Your task to perform on an android device: turn off improve location accuracy Image 0: 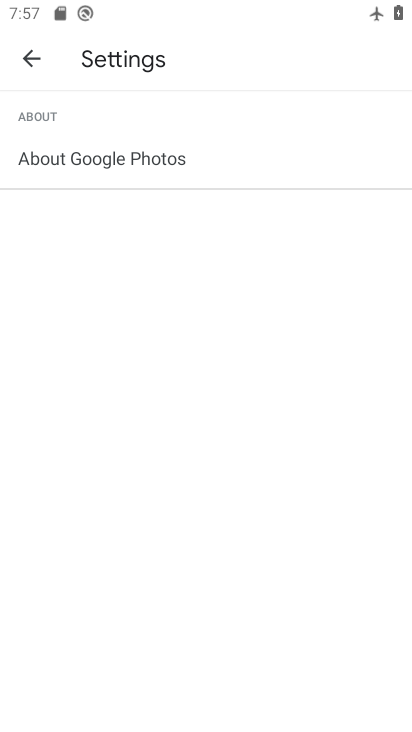
Step 0: press home button
Your task to perform on an android device: turn off improve location accuracy Image 1: 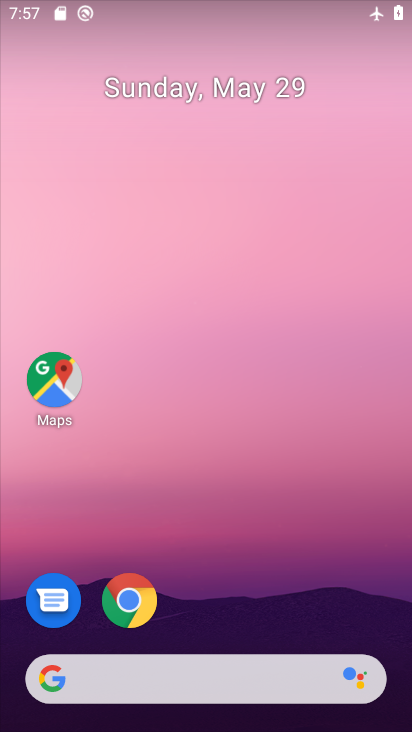
Step 1: drag from (249, 636) to (30, 541)
Your task to perform on an android device: turn off improve location accuracy Image 2: 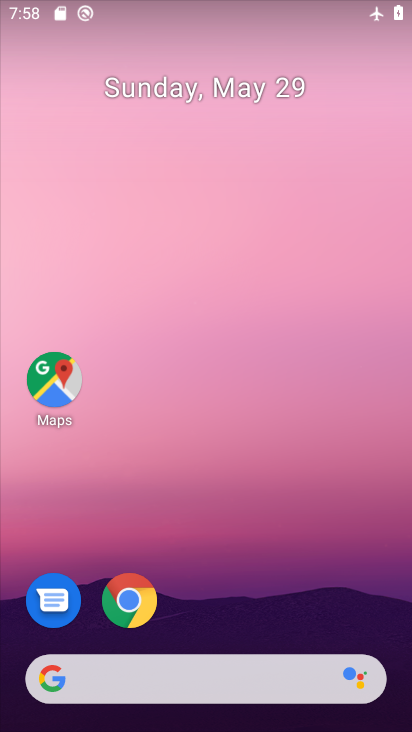
Step 2: drag from (233, 603) to (250, 7)
Your task to perform on an android device: turn off improve location accuracy Image 3: 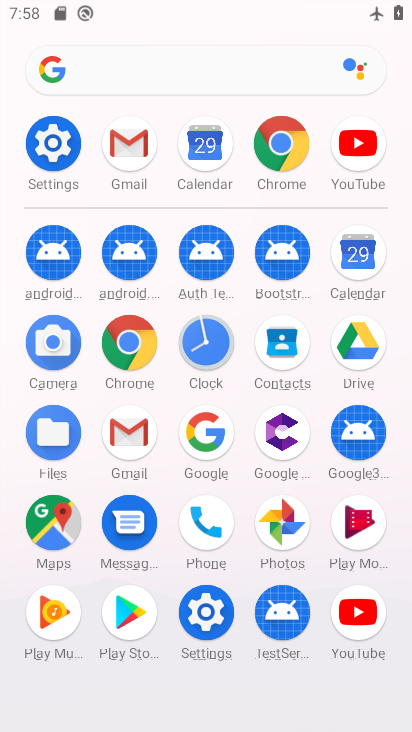
Step 3: click (60, 158)
Your task to perform on an android device: turn off improve location accuracy Image 4: 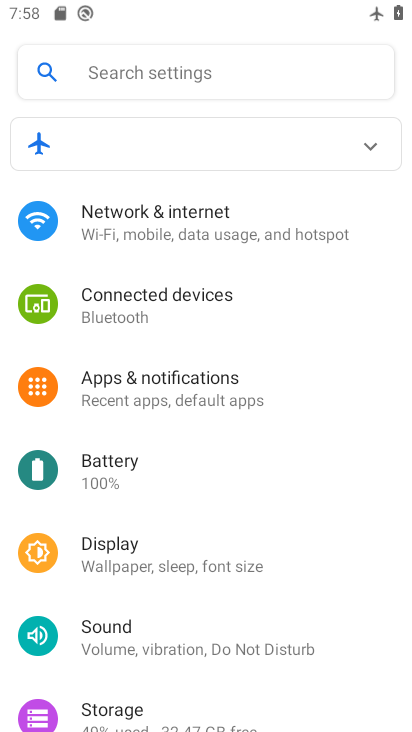
Step 4: drag from (171, 725) to (192, 354)
Your task to perform on an android device: turn off improve location accuracy Image 5: 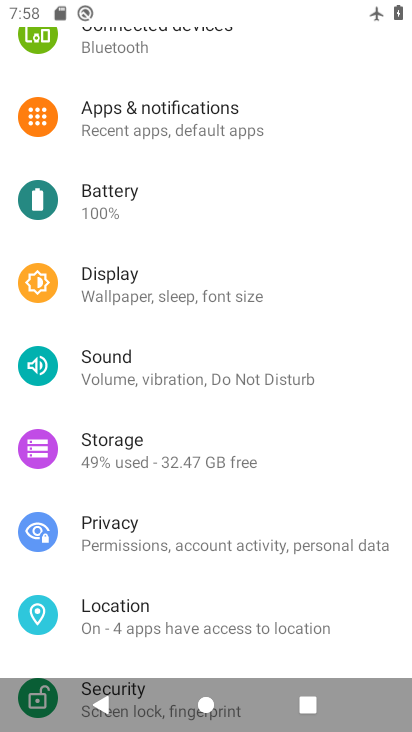
Step 5: click (173, 612)
Your task to perform on an android device: turn off improve location accuracy Image 6: 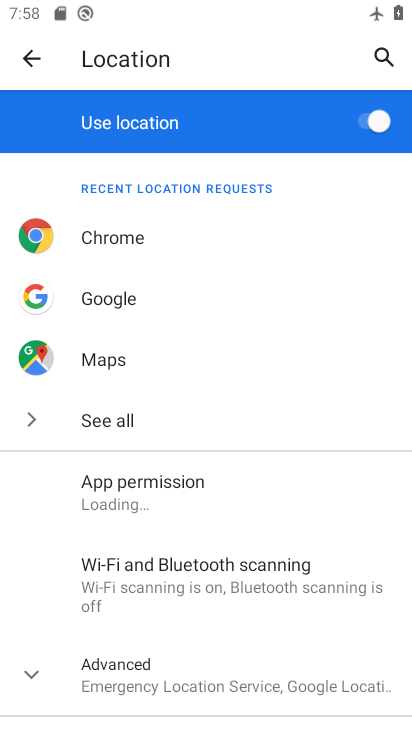
Step 6: drag from (185, 603) to (198, 331)
Your task to perform on an android device: turn off improve location accuracy Image 7: 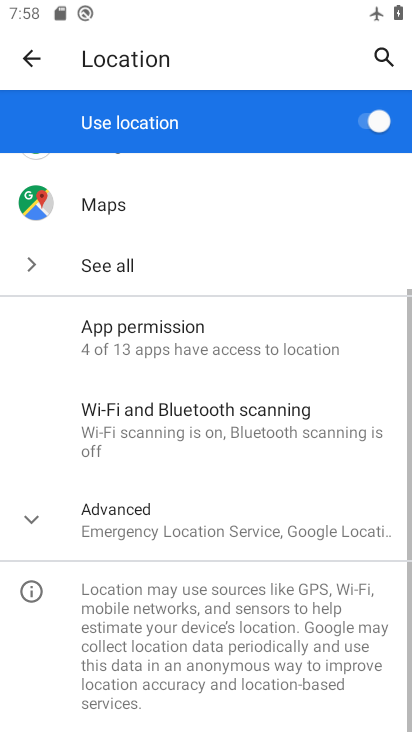
Step 7: click (101, 528)
Your task to perform on an android device: turn off improve location accuracy Image 8: 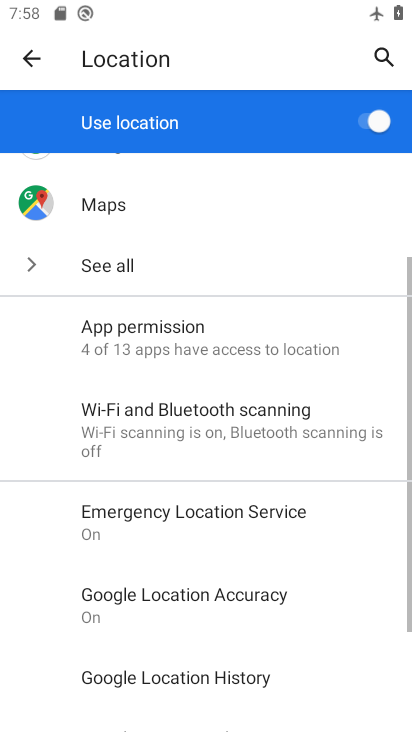
Step 8: drag from (185, 672) to (207, 432)
Your task to perform on an android device: turn off improve location accuracy Image 9: 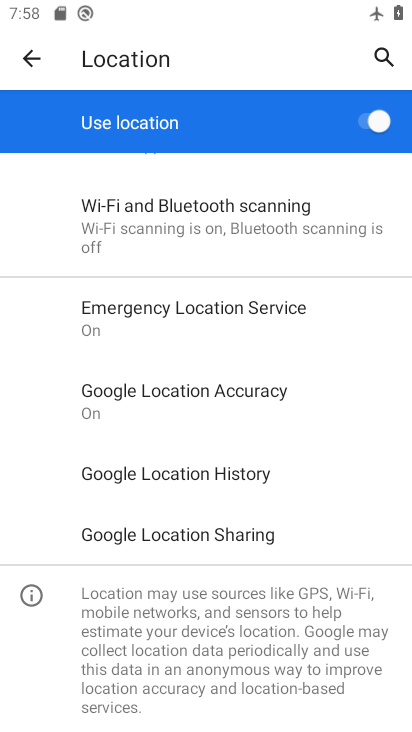
Step 9: click (185, 410)
Your task to perform on an android device: turn off improve location accuracy Image 10: 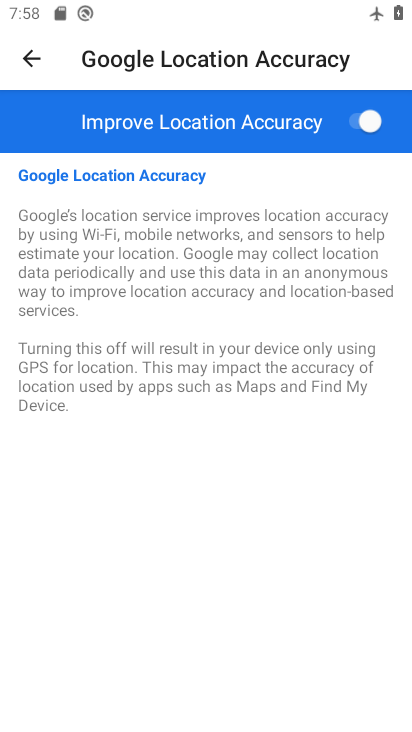
Step 10: click (351, 126)
Your task to perform on an android device: turn off improve location accuracy Image 11: 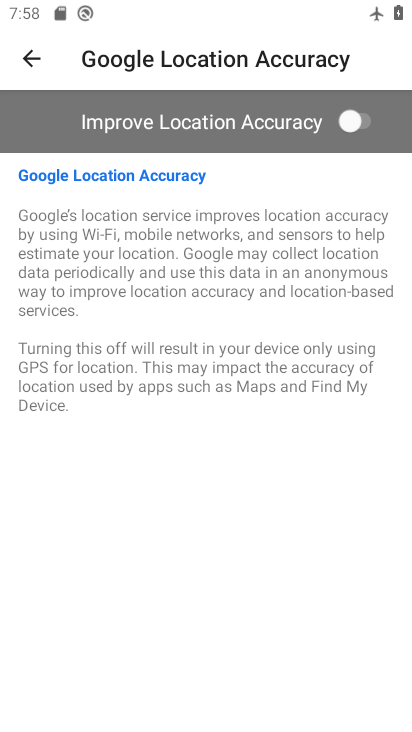
Step 11: task complete